Your task to perform on an android device: What's the weather today? Image 0: 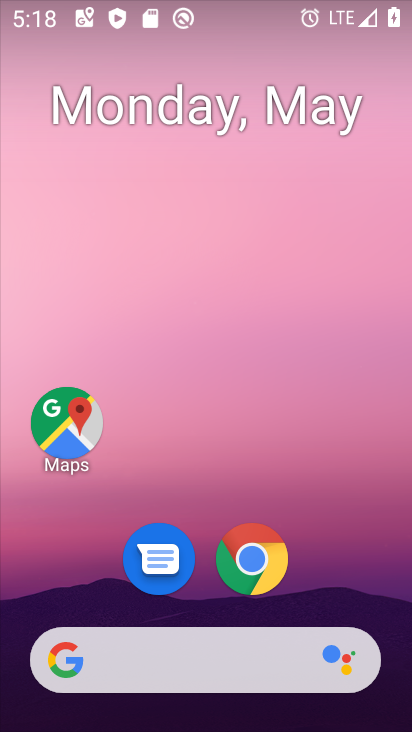
Step 0: drag from (272, 655) to (329, 18)
Your task to perform on an android device: What's the weather today? Image 1: 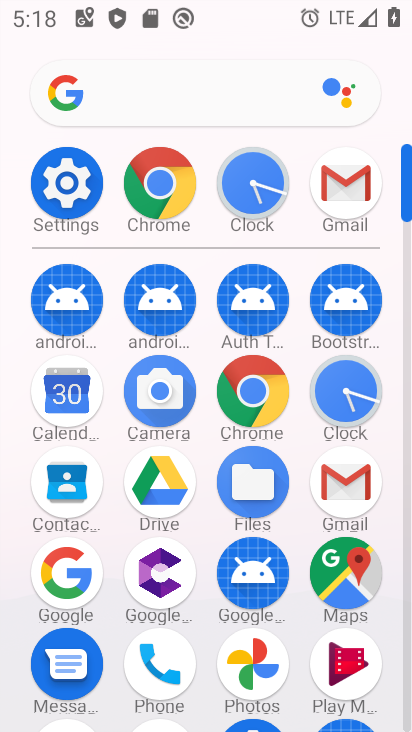
Step 1: press home button
Your task to perform on an android device: What's the weather today? Image 2: 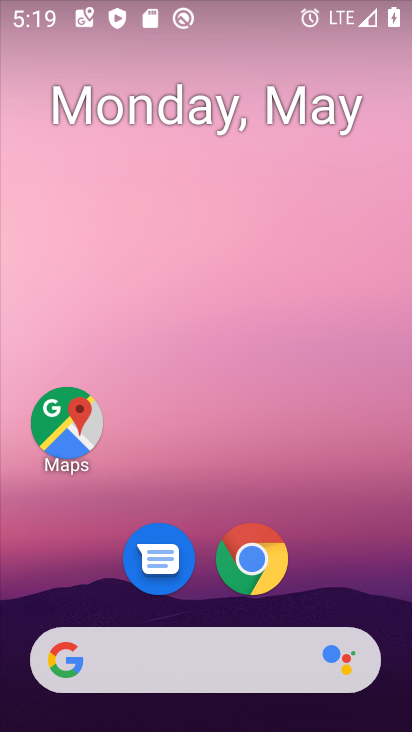
Step 2: click (294, 229)
Your task to perform on an android device: What's the weather today? Image 3: 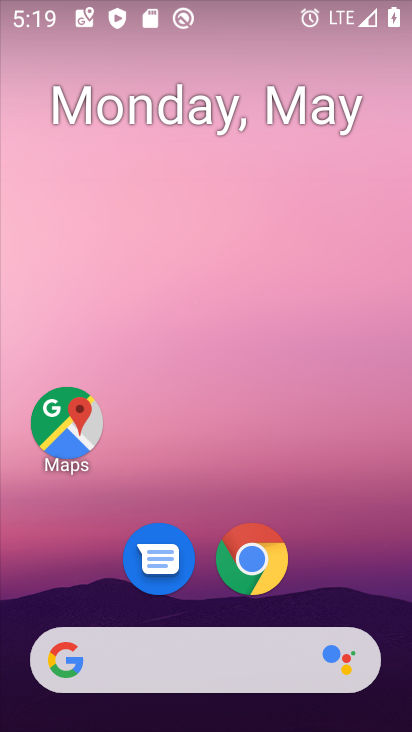
Step 3: drag from (43, 231) to (401, 249)
Your task to perform on an android device: What's the weather today? Image 4: 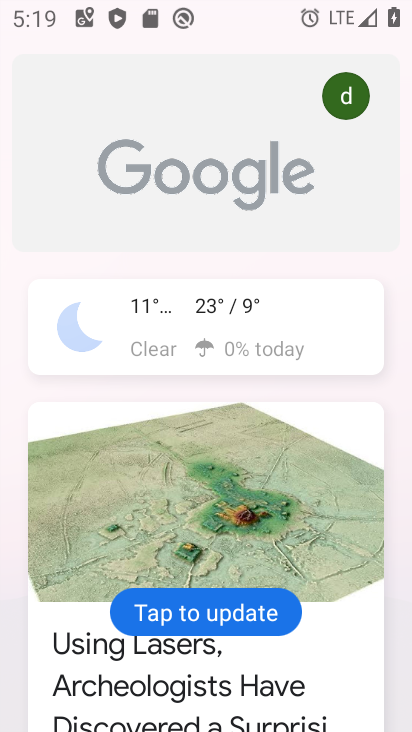
Step 4: click (284, 327)
Your task to perform on an android device: What's the weather today? Image 5: 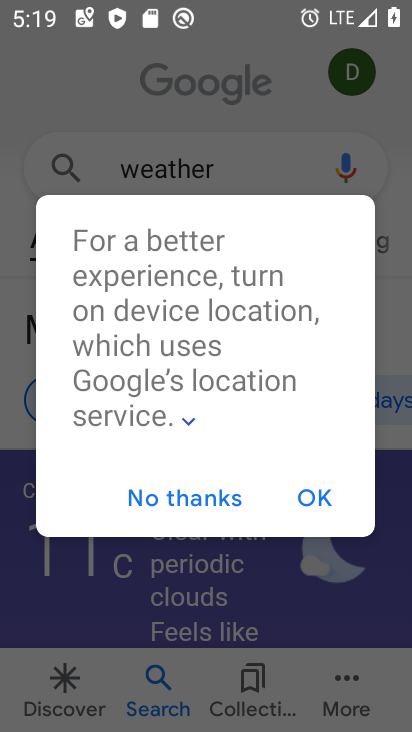
Step 5: click (190, 500)
Your task to perform on an android device: What's the weather today? Image 6: 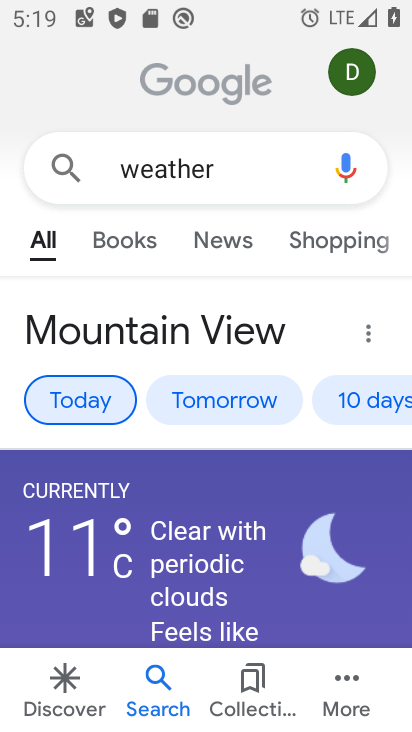
Step 6: task complete